Your task to perform on an android device: View the shopping cart on amazon. Search for bose soundlink mini on amazon, select the first entry, add it to the cart, then select checkout. Image 0: 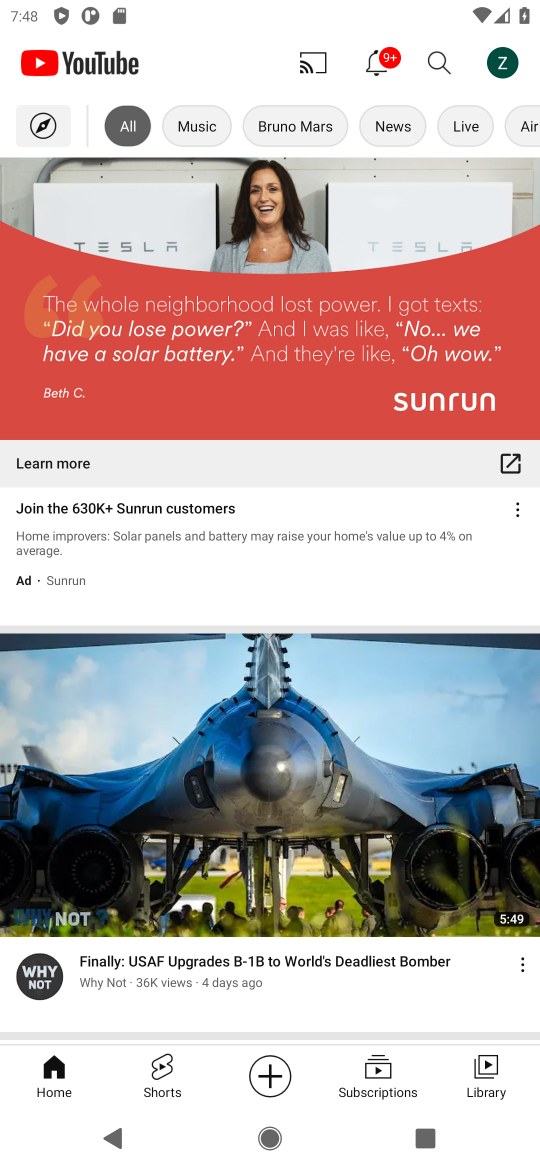
Step 0: press home button
Your task to perform on an android device: View the shopping cart on amazon. Search for bose soundlink mini on amazon, select the first entry, add it to the cart, then select checkout. Image 1: 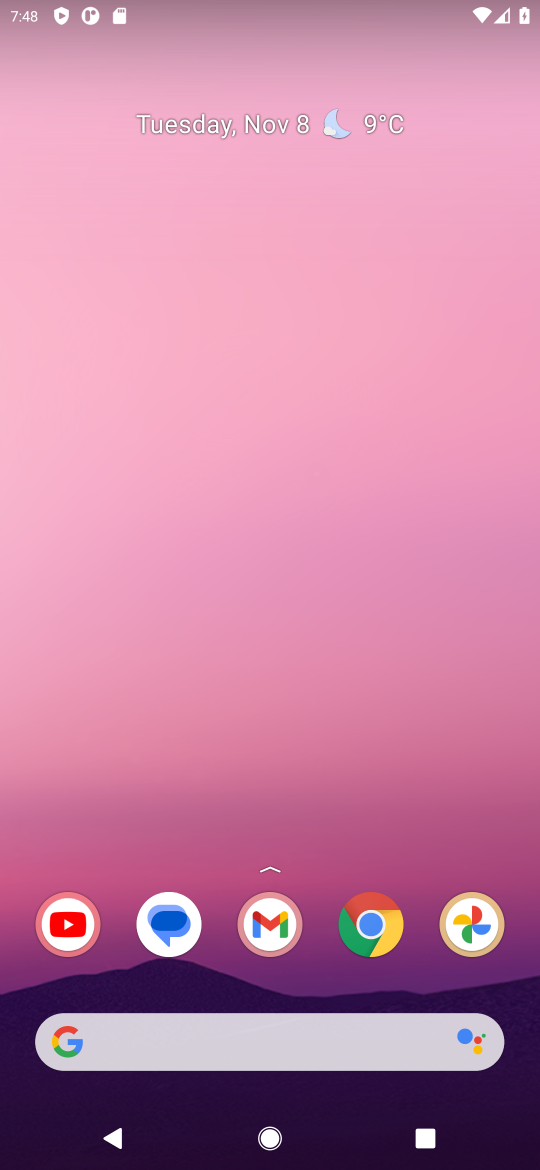
Step 1: click (210, 1035)
Your task to perform on an android device: View the shopping cart on amazon. Search for bose soundlink mini on amazon, select the first entry, add it to the cart, then select checkout. Image 2: 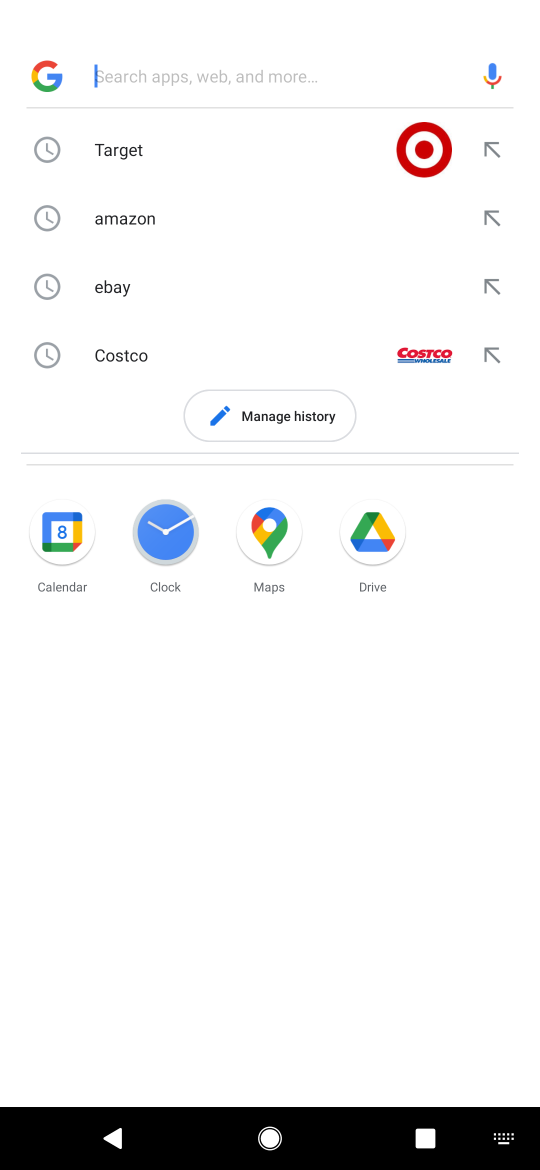
Step 2: type "amazon"
Your task to perform on an android device: View the shopping cart on amazon. Search for bose soundlink mini on amazon, select the first entry, add it to the cart, then select checkout. Image 3: 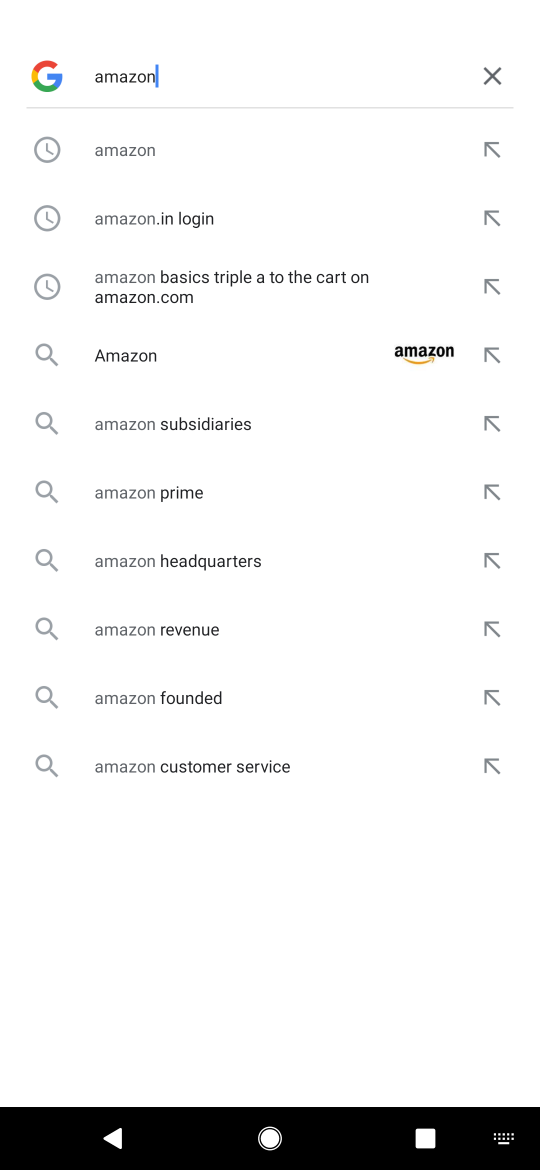
Step 3: click (230, 359)
Your task to perform on an android device: View the shopping cart on amazon. Search for bose soundlink mini on amazon, select the first entry, add it to the cart, then select checkout. Image 4: 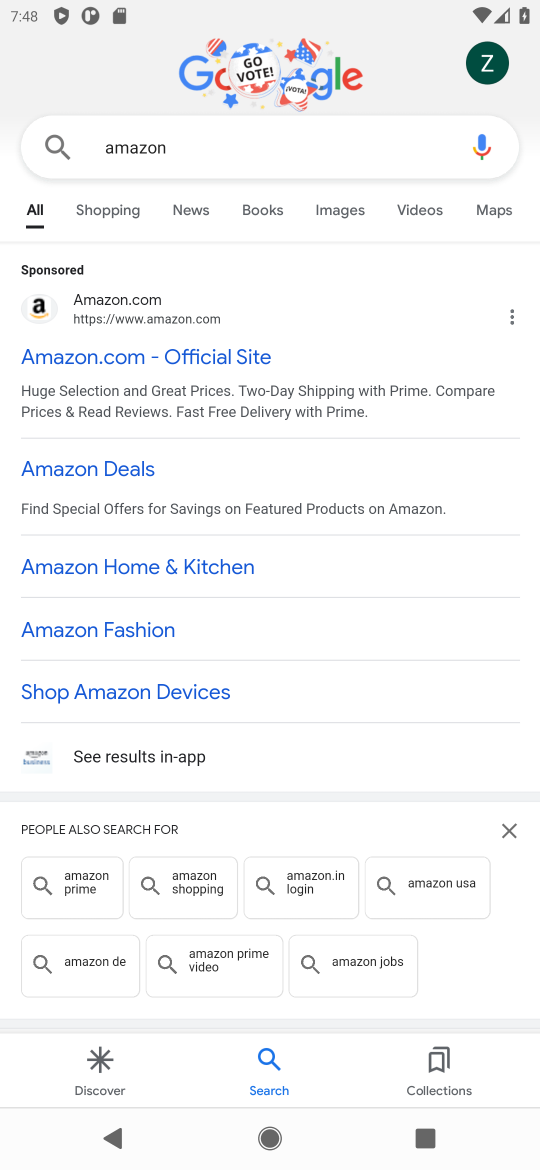
Step 4: click (118, 295)
Your task to perform on an android device: View the shopping cart on amazon. Search for bose soundlink mini on amazon, select the first entry, add it to the cart, then select checkout. Image 5: 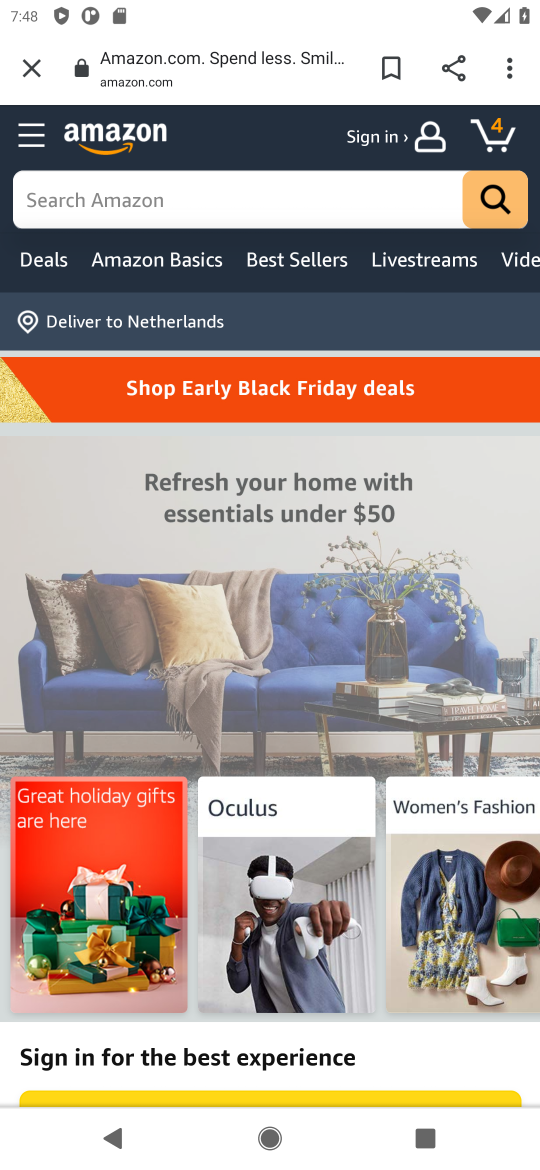
Step 5: click (264, 185)
Your task to perform on an android device: View the shopping cart on amazon. Search for bose soundlink mini on amazon, select the first entry, add it to the cart, then select checkout. Image 6: 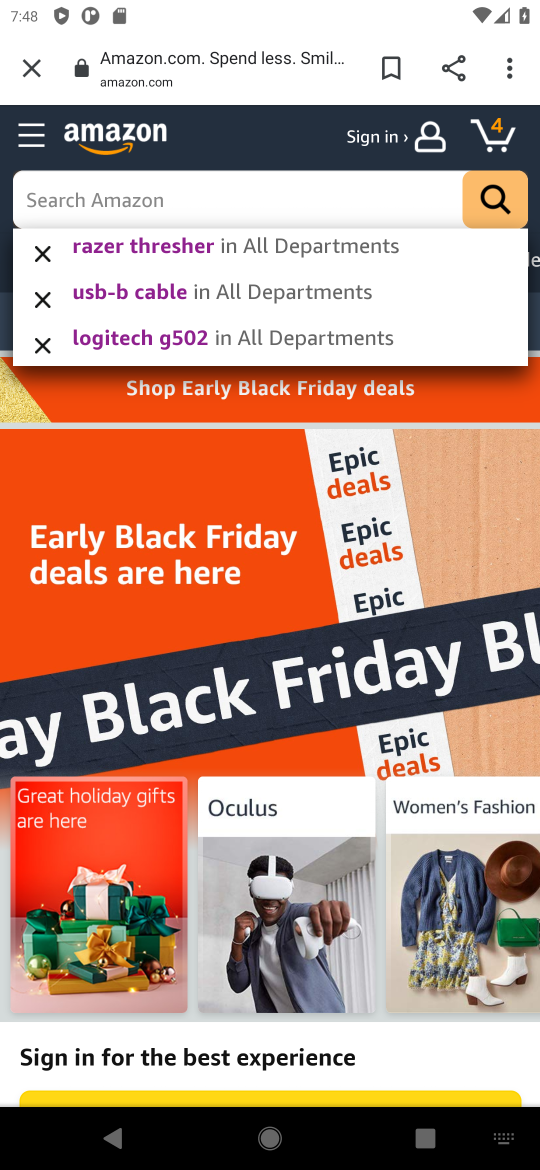
Step 6: type " bose soundlink mini"
Your task to perform on an android device: View the shopping cart on amazon. Search for bose soundlink mini on amazon, select the first entry, add it to the cart, then select checkout. Image 7: 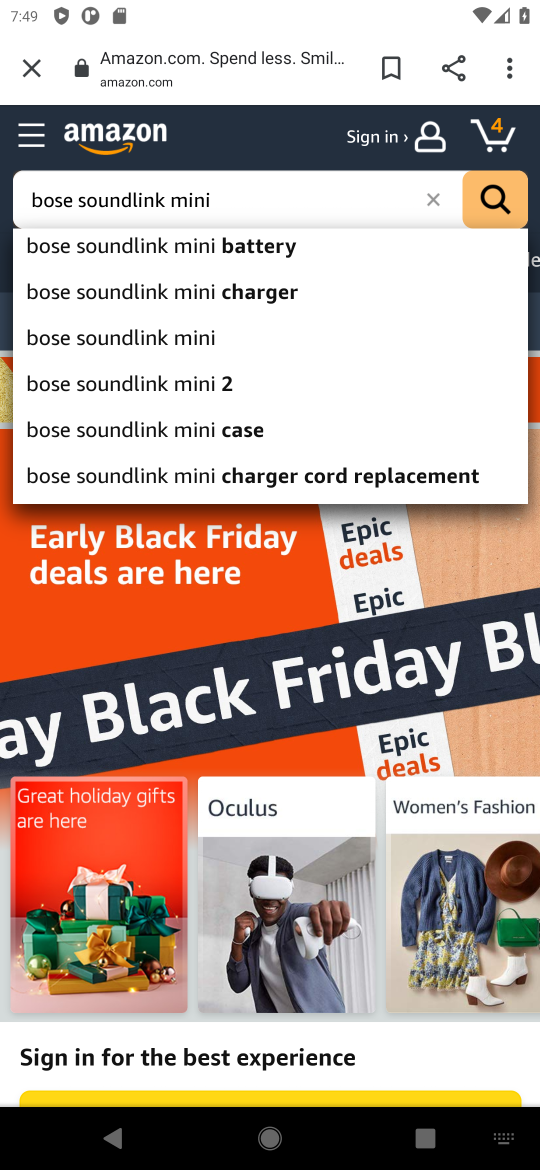
Step 7: click (180, 342)
Your task to perform on an android device: View the shopping cart on amazon. Search for bose soundlink mini on amazon, select the first entry, add it to the cart, then select checkout. Image 8: 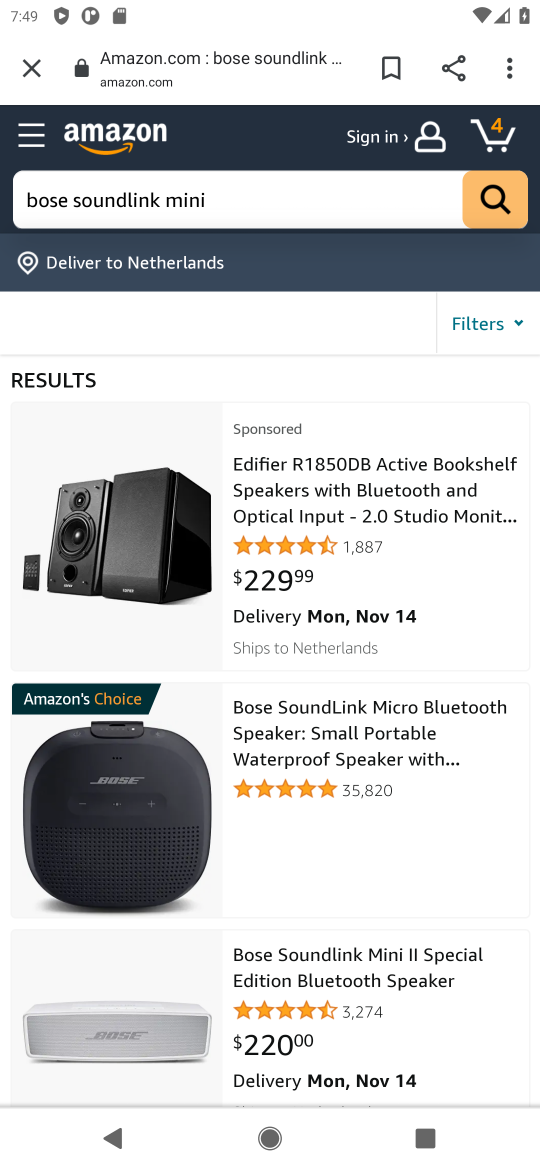
Step 8: click (272, 487)
Your task to perform on an android device: View the shopping cart on amazon. Search for bose soundlink mini on amazon, select the first entry, add it to the cart, then select checkout. Image 9: 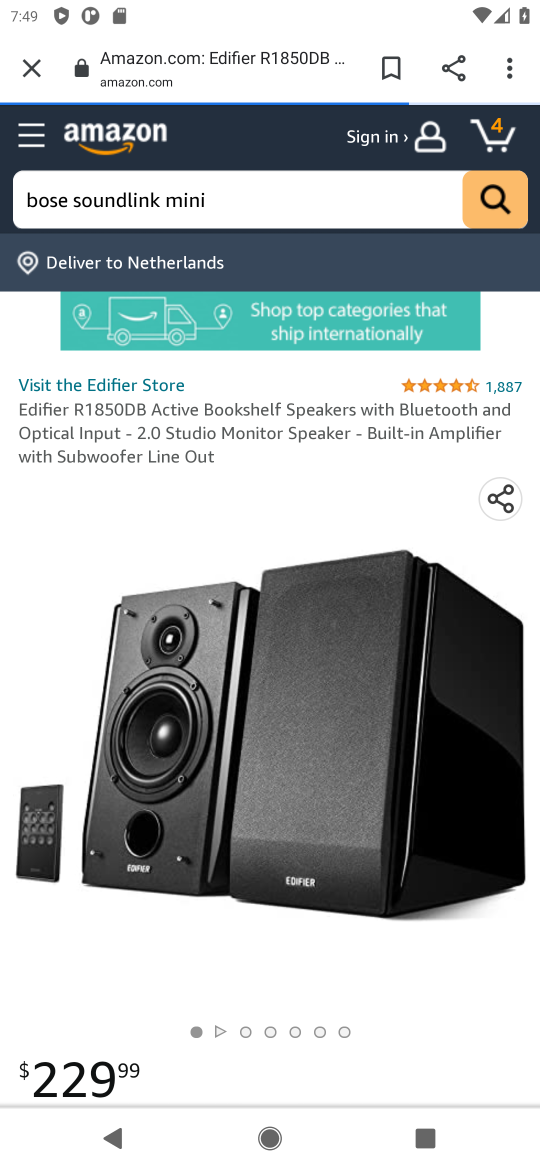
Step 9: drag from (204, 865) to (337, 396)
Your task to perform on an android device: View the shopping cart on amazon. Search for bose soundlink mini on amazon, select the first entry, add it to the cart, then select checkout. Image 10: 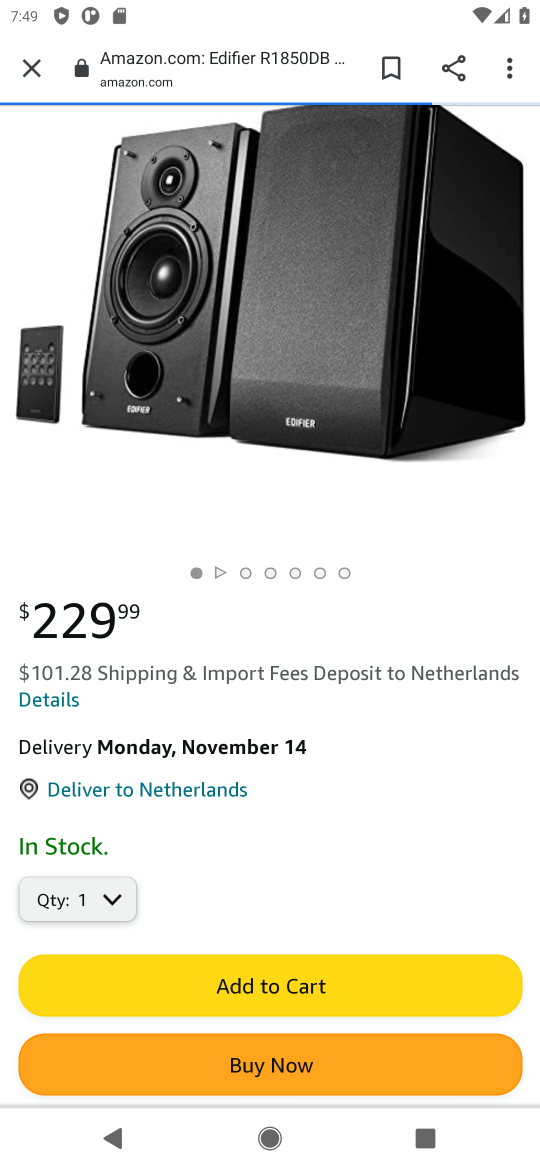
Step 10: click (262, 983)
Your task to perform on an android device: View the shopping cart on amazon. Search for bose soundlink mini on amazon, select the first entry, add it to the cart, then select checkout. Image 11: 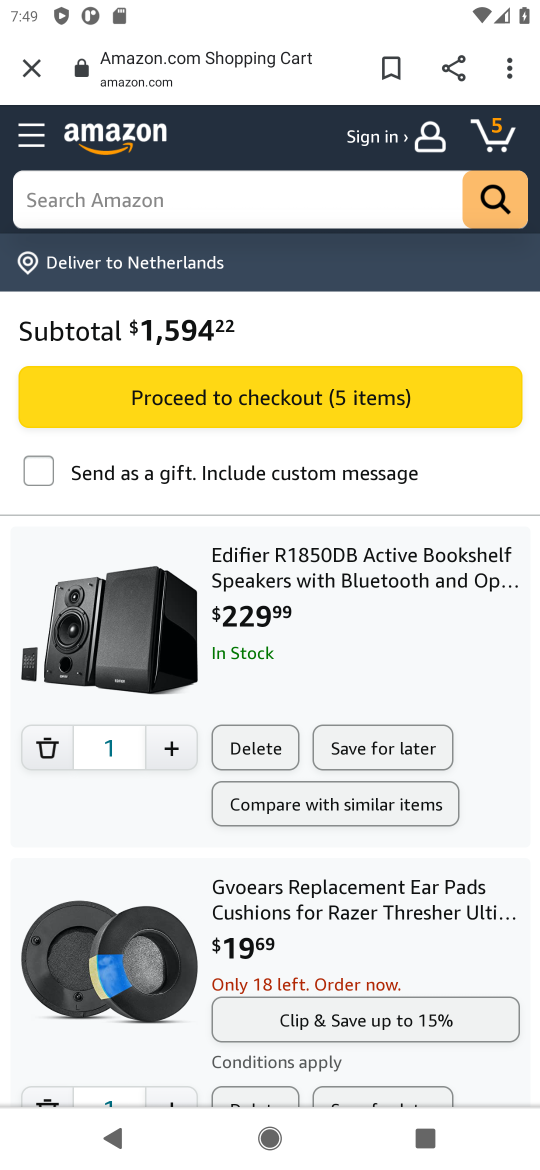
Step 11: click (301, 377)
Your task to perform on an android device: View the shopping cart on amazon. Search for bose soundlink mini on amazon, select the first entry, add it to the cart, then select checkout. Image 12: 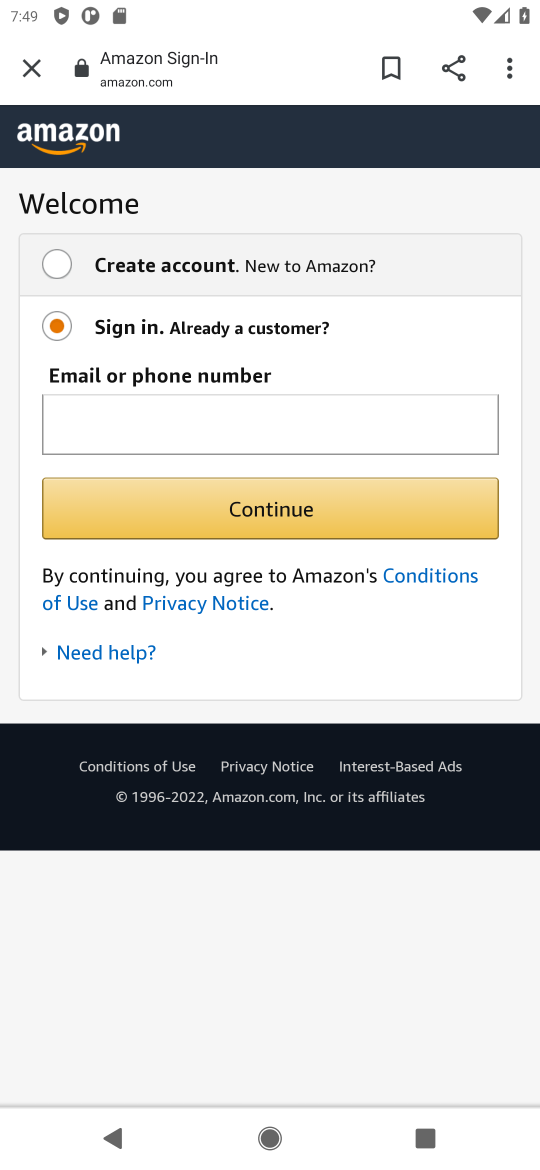
Step 12: task complete